Your task to perform on an android device: turn off wifi Image 0: 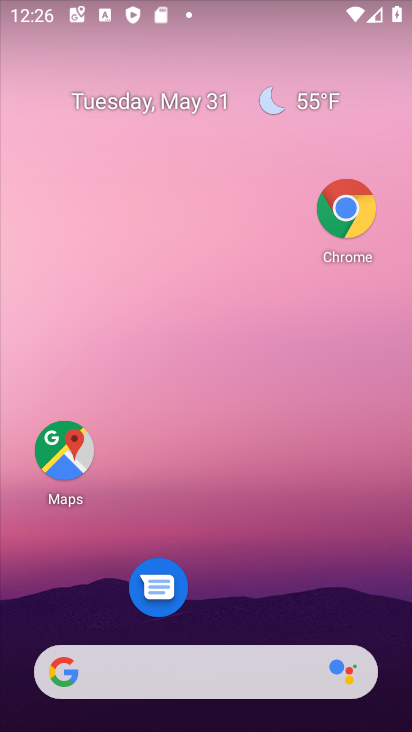
Step 0: drag from (206, 9) to (218, 612)
Your task to perform on an android device: turn off wifi Image 1: 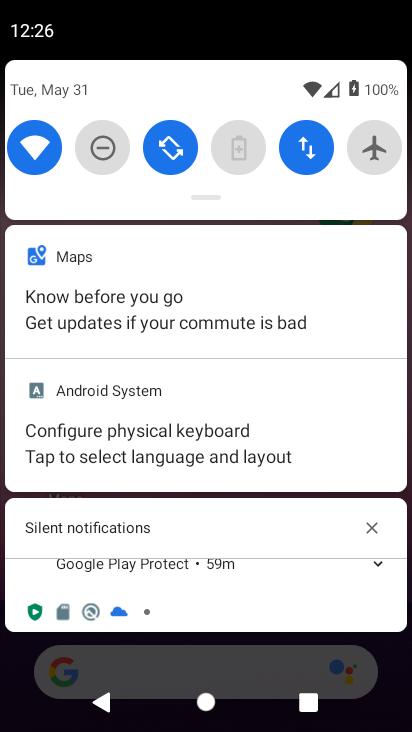
Step 1: click (37, 163)
Your task to perform on an android device: turn off wifi Image 2: 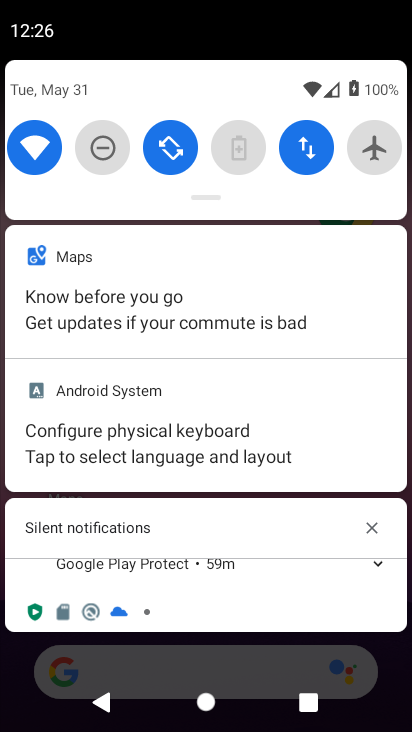
Step 2: task complete